Your task to perform on an android device: When is my next meeting? Image 0: 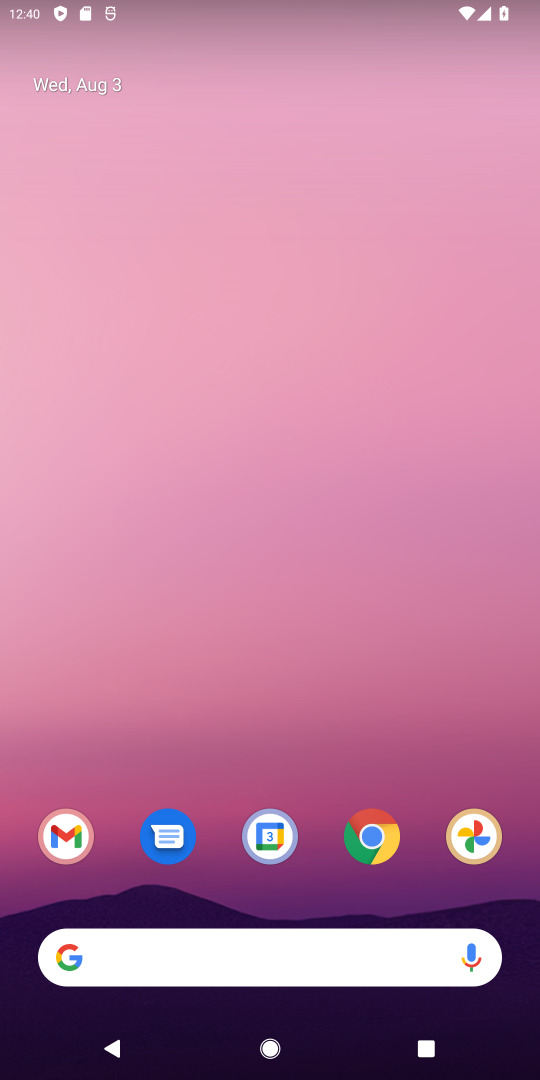
Step 0: drag from (203, 896) to (359, 108)
Your task to perform on an android device: When is my next meeting? Image 1: 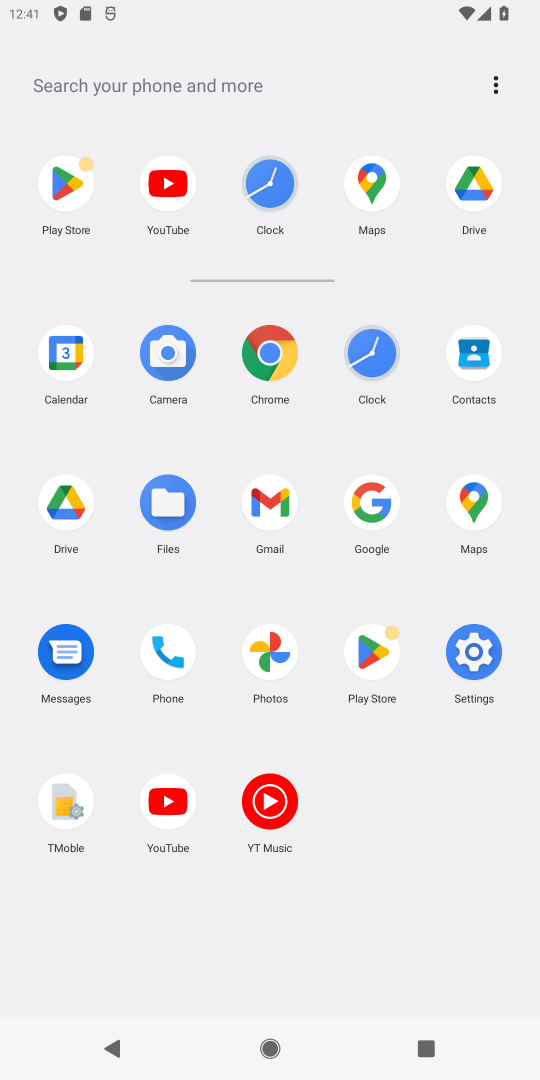
Step 1: click (62, 351)
Your task to perform on an android device: When is my next meeting? Image 2: 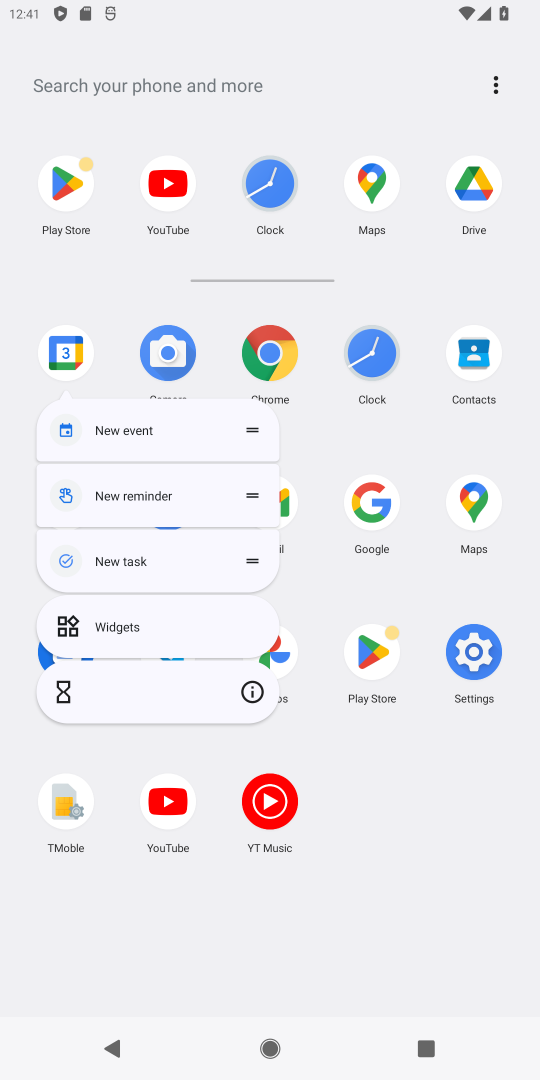
Step 2: click (248, 689)
Your task to perform on an android device: When is my next meeting? Image 3: 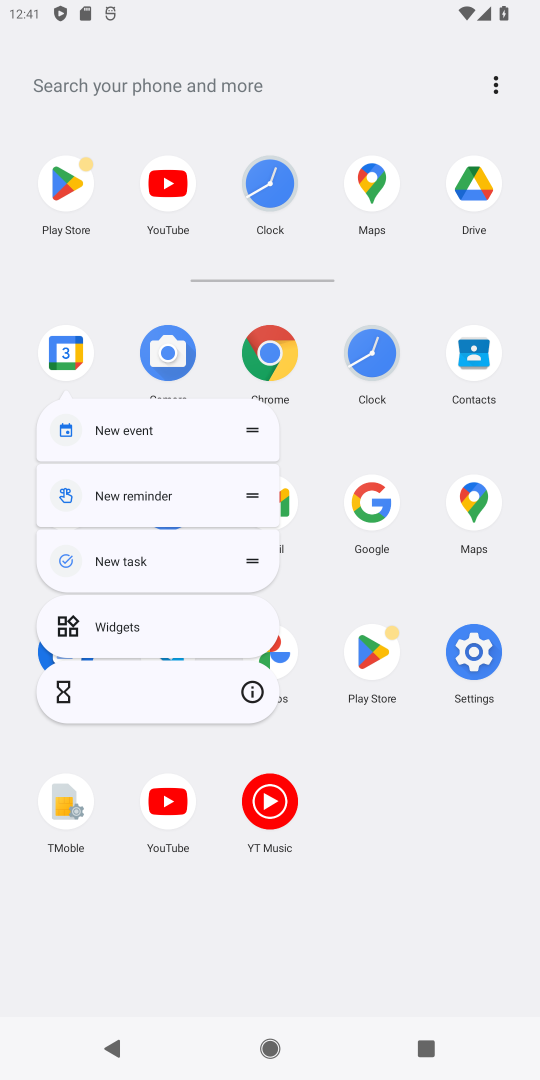
Step 3: click (242, 692)
Your task to perform on an android device: When is my next meeting? Image 4: 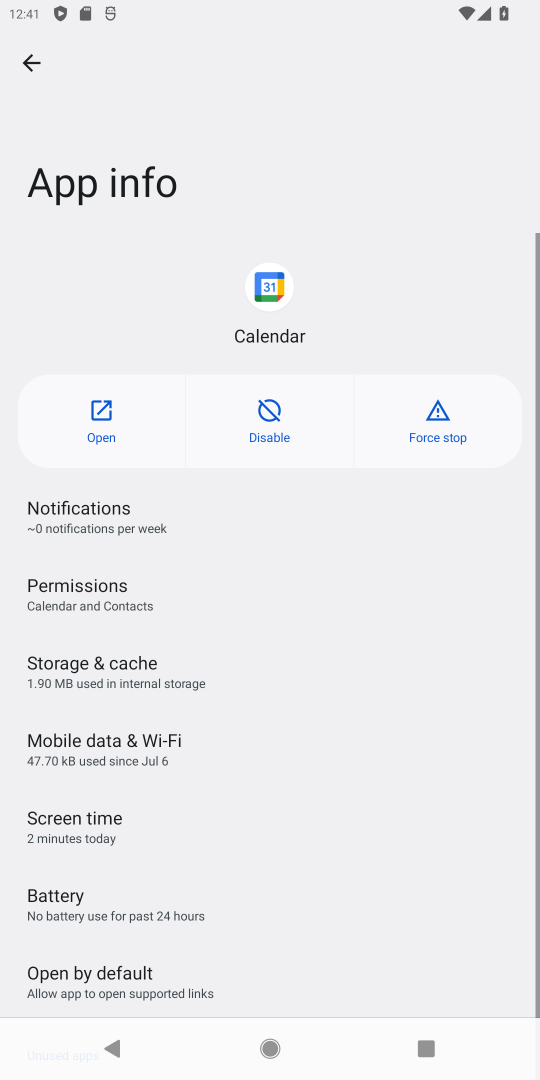
Step 4: click (106, 407)
Your task to perform on an android device: When is my next meeting? Image 5: 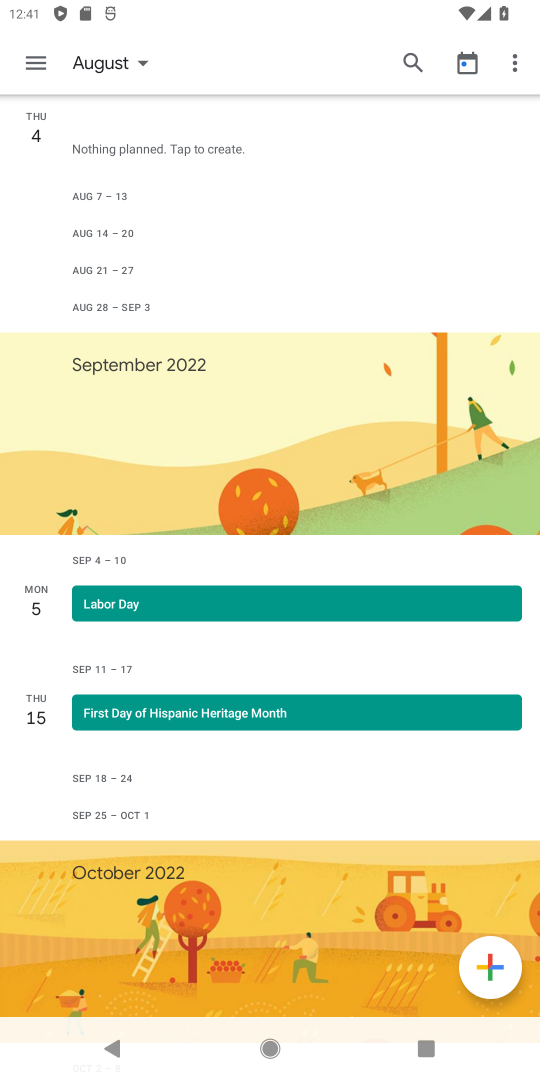
Step 5: click (460, 75)
Your task to perform on an android device: When is my next meeting? Image 6: 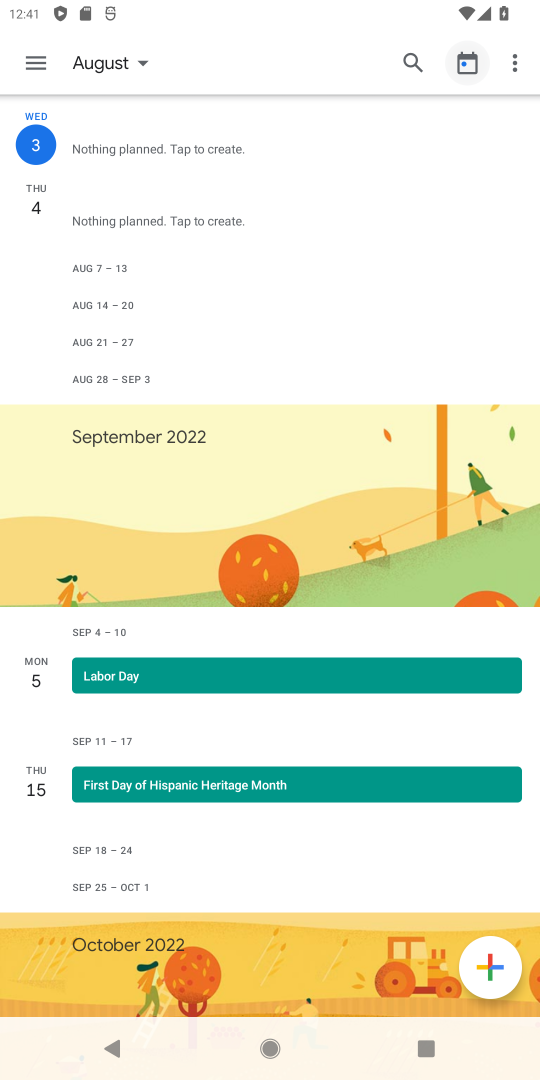
Step 6: click (133, 81)
Your task to perform on an android device: When is my next meeting? Image 7: 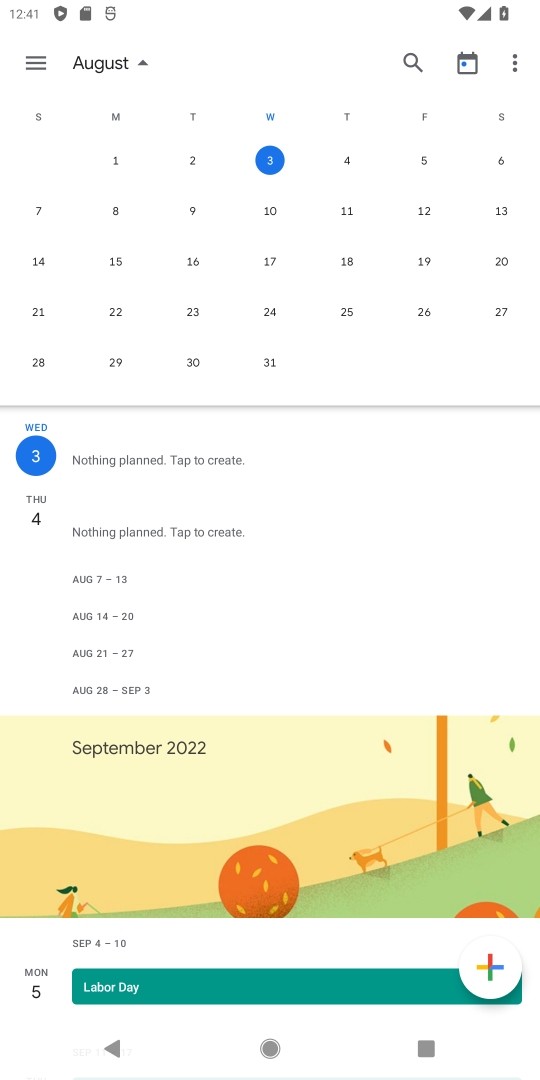
Step 7: click (270, 165)
Your task to perform on an android device: When is my next meeting? Image 8: 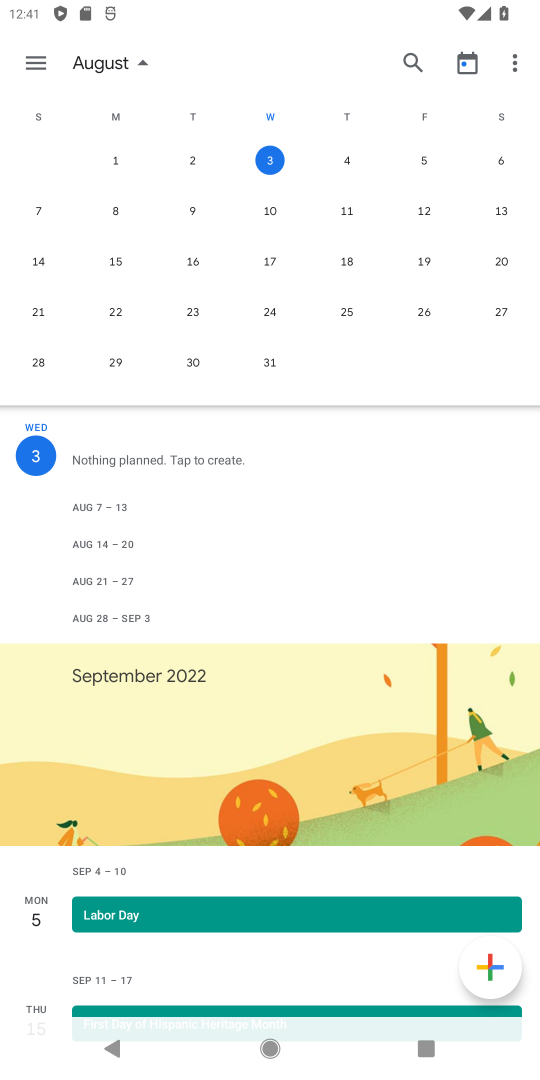
Step 8: task complete